Your task to perform on an android device: Open network settings Image 0: 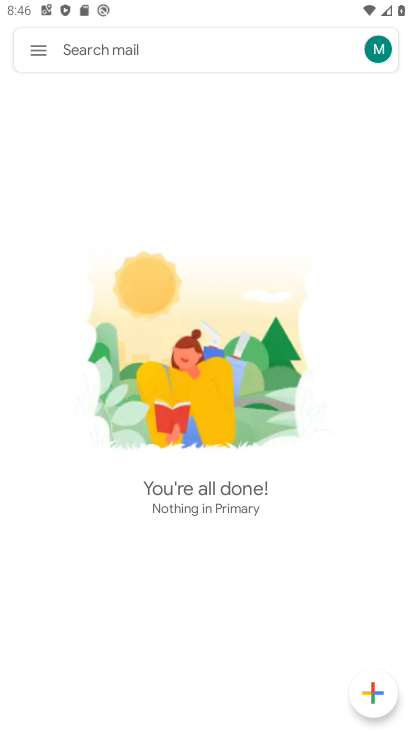
Step 0: press home button
Your task to perform on an android device: Open network settings Image 1: 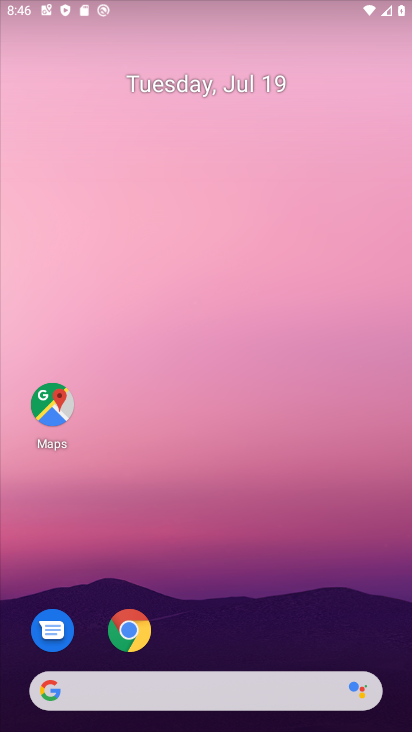
Step 1: drag from (203, 627) to (198, 110)
Your task to perform on an android device: Open network settings Image 2: 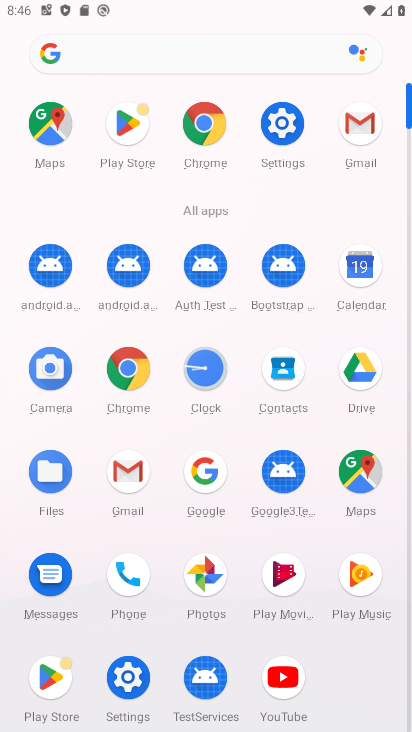
Step 2: click (278, 127)
Your task to perform on an android device: Open network settings Image 3: 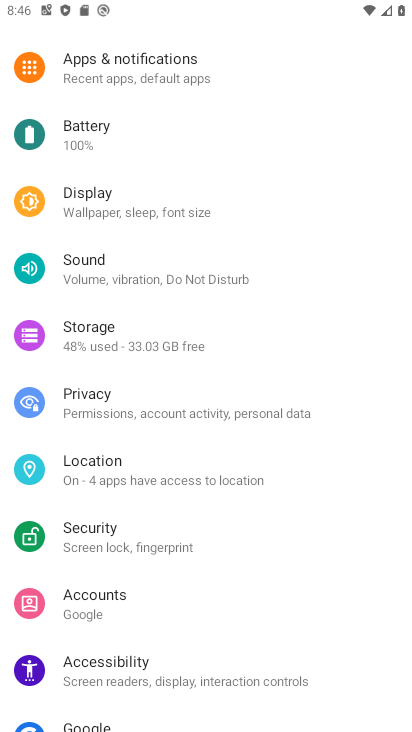
Step 3: drag from (125, 85) to (175, 459)
Your task to perform on an android device: Open network settings Image 4: 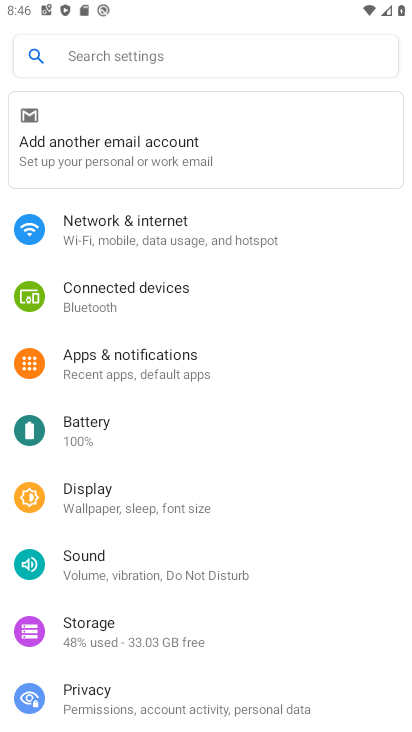
Step 4: click (119, 226)
Your task to perform on an android device: Open network settings Image 5: 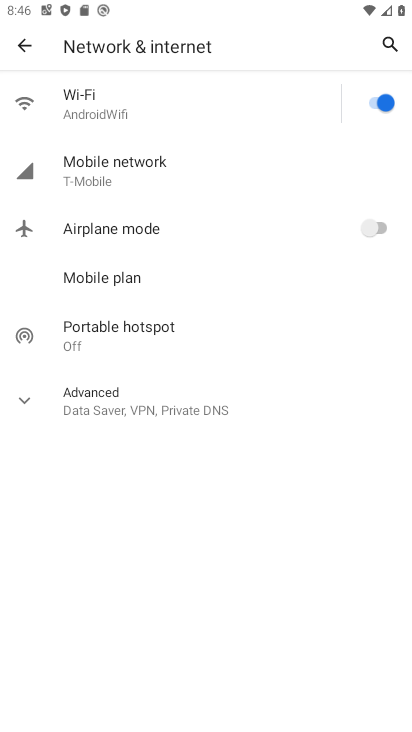
Step 5: click (105, 179)
Your task to perform on an android device: Open network settings Image 6: 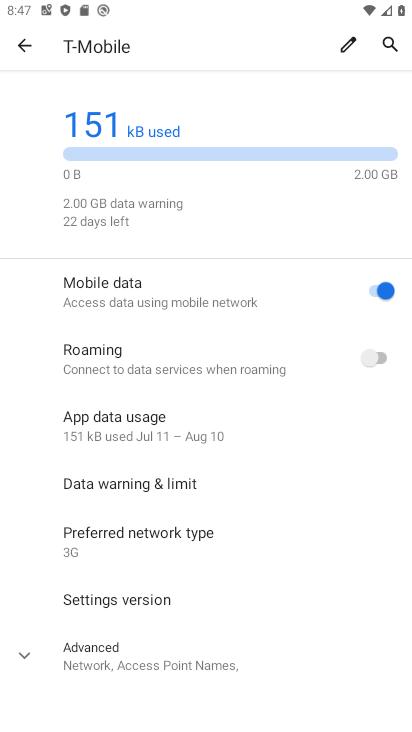
Step 6: task complete